Your task to perform on an android device: Open Youtube and go to "Your channel" Image 0: 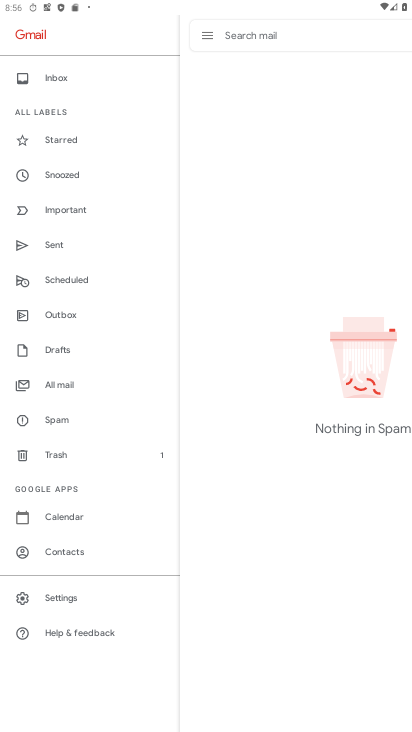
Step 0: press home button
Your task to perform on an android device: Open Youtube and go to "Your channel" Image 1: 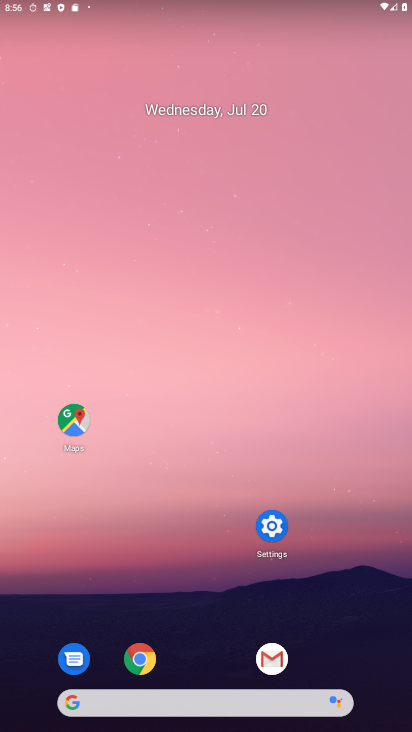
Step 1: drag from (279, 723) to (394, 109)
Your task to perform on an android device: Open Youtube and go to "Your channel" Image 2: 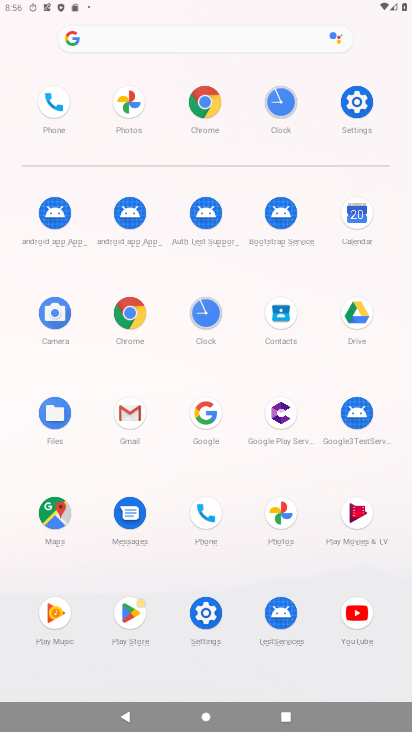
Step 2: click (348, 621)
Your task to perform on an android device: Open Youtube and go to "Your channel" Image 3: 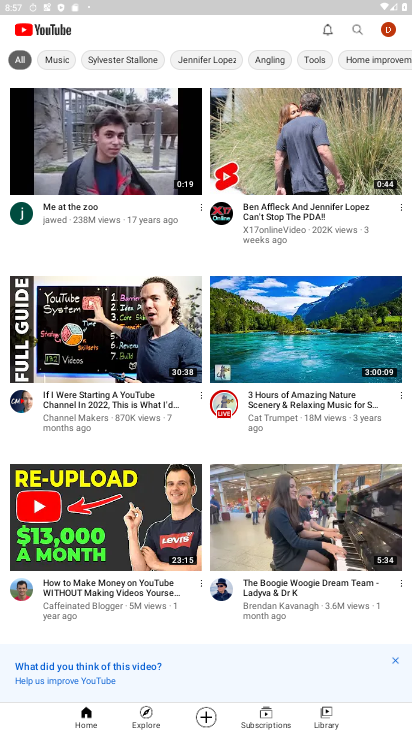
Step 3: click (389, 30)
Your task to perform on an android device: Open Youtube and go to "Your channel" Image 4: 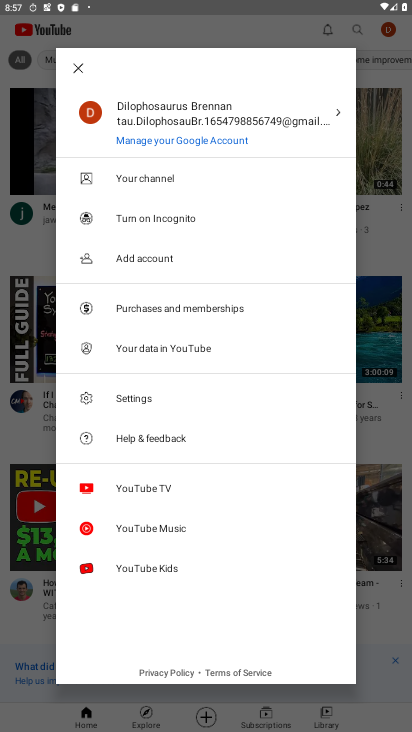
Step 4: click (158, 178)
Your task to perform on an android device: Open Youtube and go to "Your channel" Image 5: 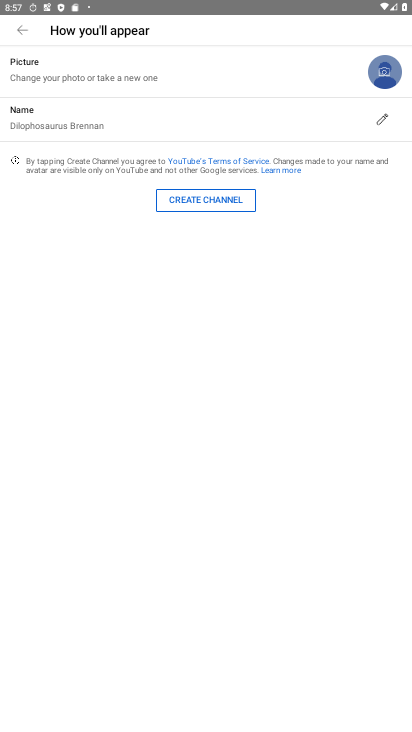
Step 5: task complete